Your task to perform on an android device: Do I have any events this weekend? Image 0: 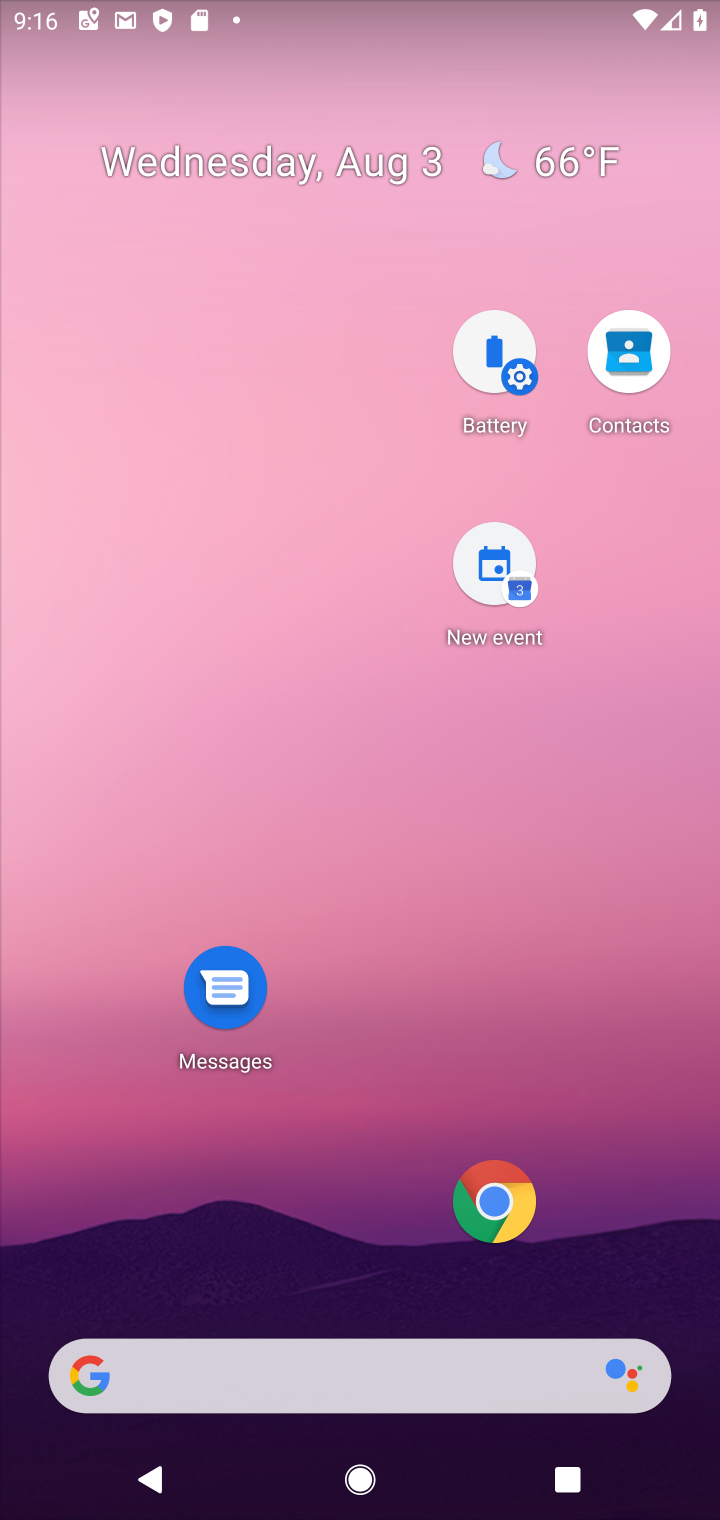
Step 0: click (239, 443)
Your task to perform on an android device: Do I have any events this weekend? Image 1: 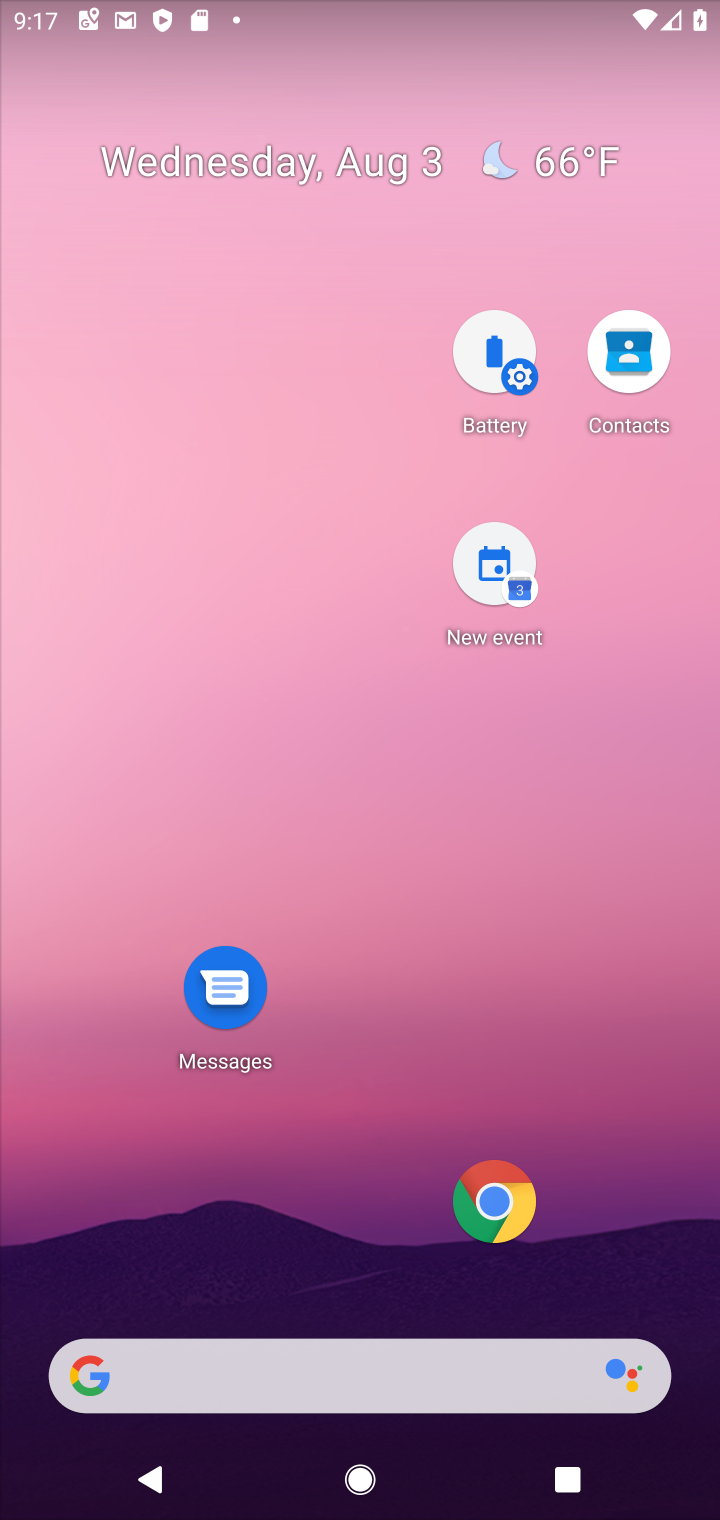
Step 1: drag from (435, 731) to (318, 17)
Your task to perform on an android device: Do I have any events this weekend? Image 2: 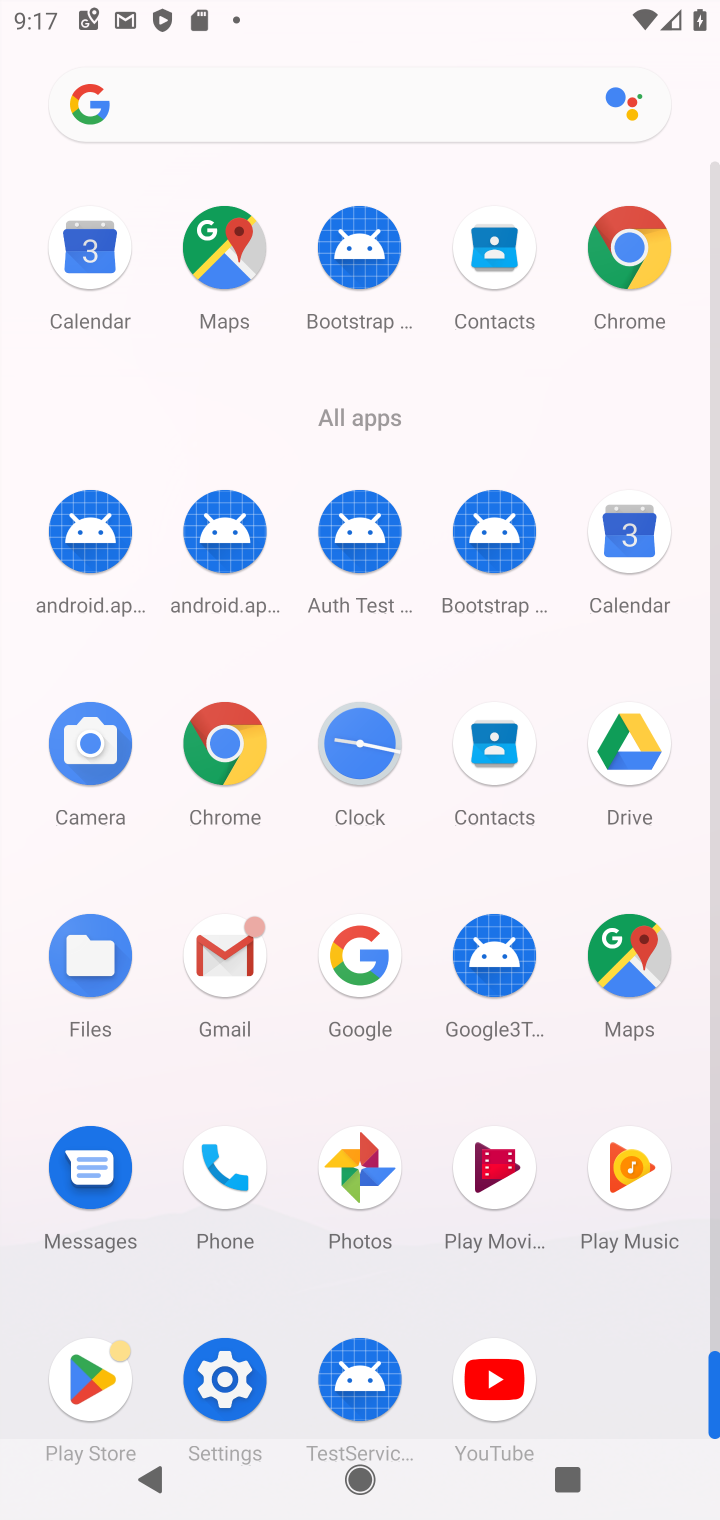
Step 2: click (623, 549)
Your task to perform on an android device: Do I have any events this weekend? Image 3: 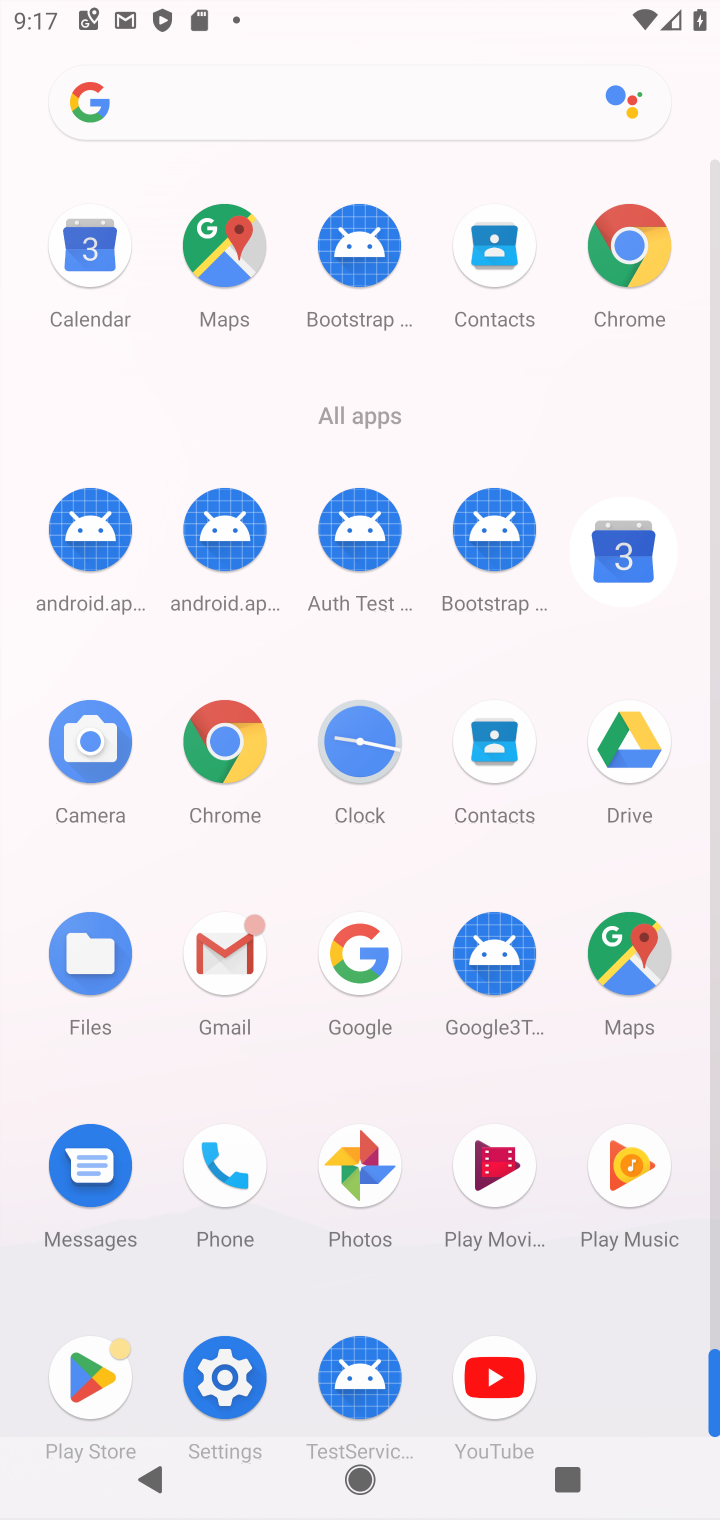
Step 3: click (623, 546)
Your task to perform on an android device: Do I have any events this weekend? Image 4: 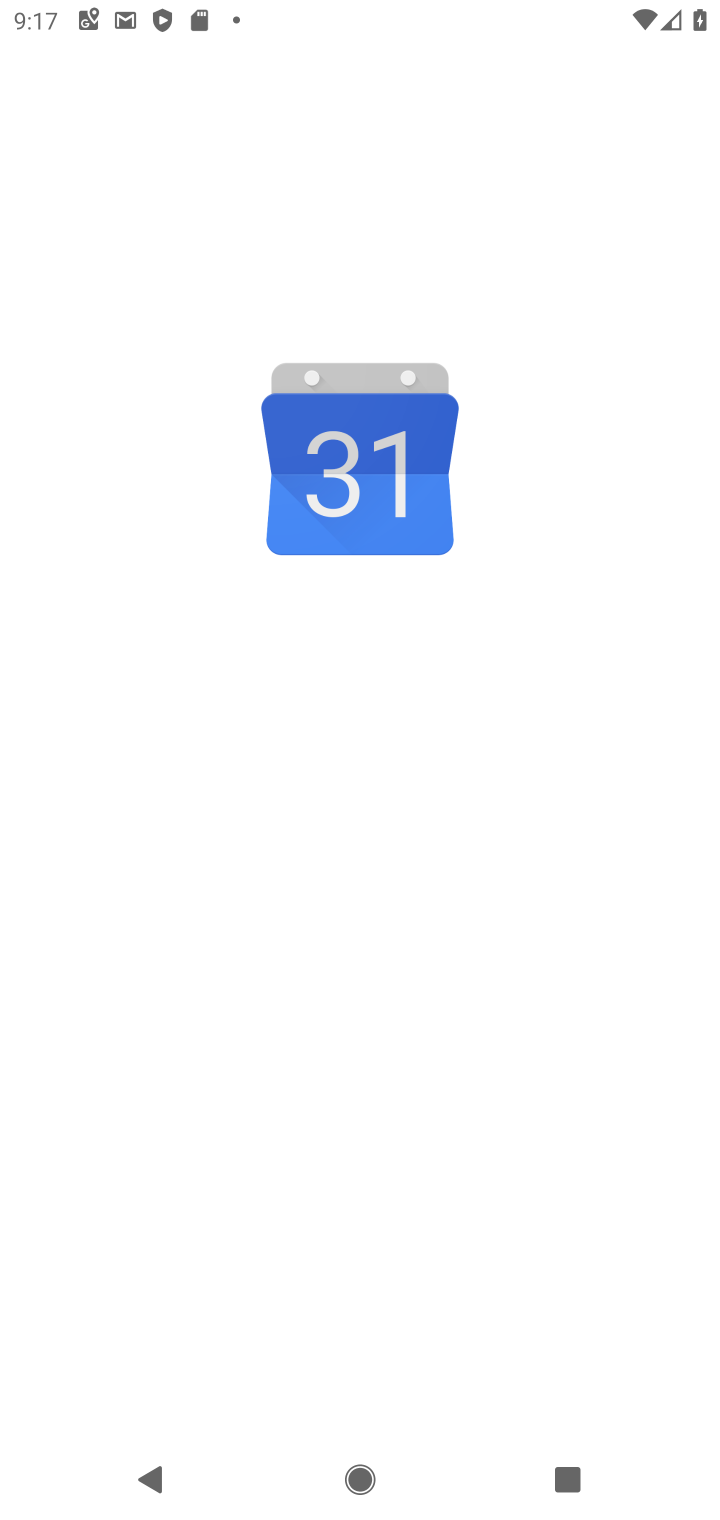
Step 4: click (622, 534)
Your task to perform on an android device: Do I have any events this weekend? Image 5: 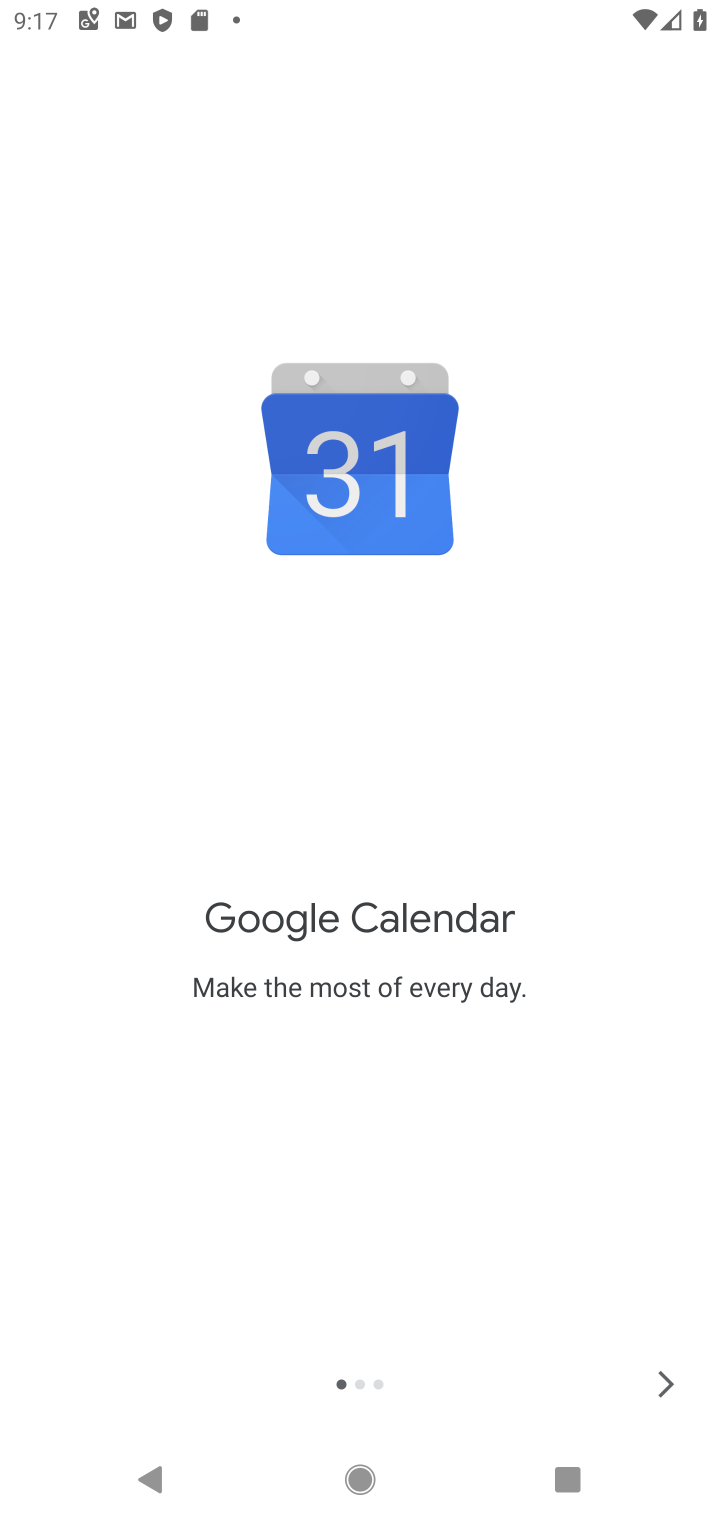
Step 5: click (656, 1365)
Your task to perform on an android device: Do I have any events this weekend? Image 6: 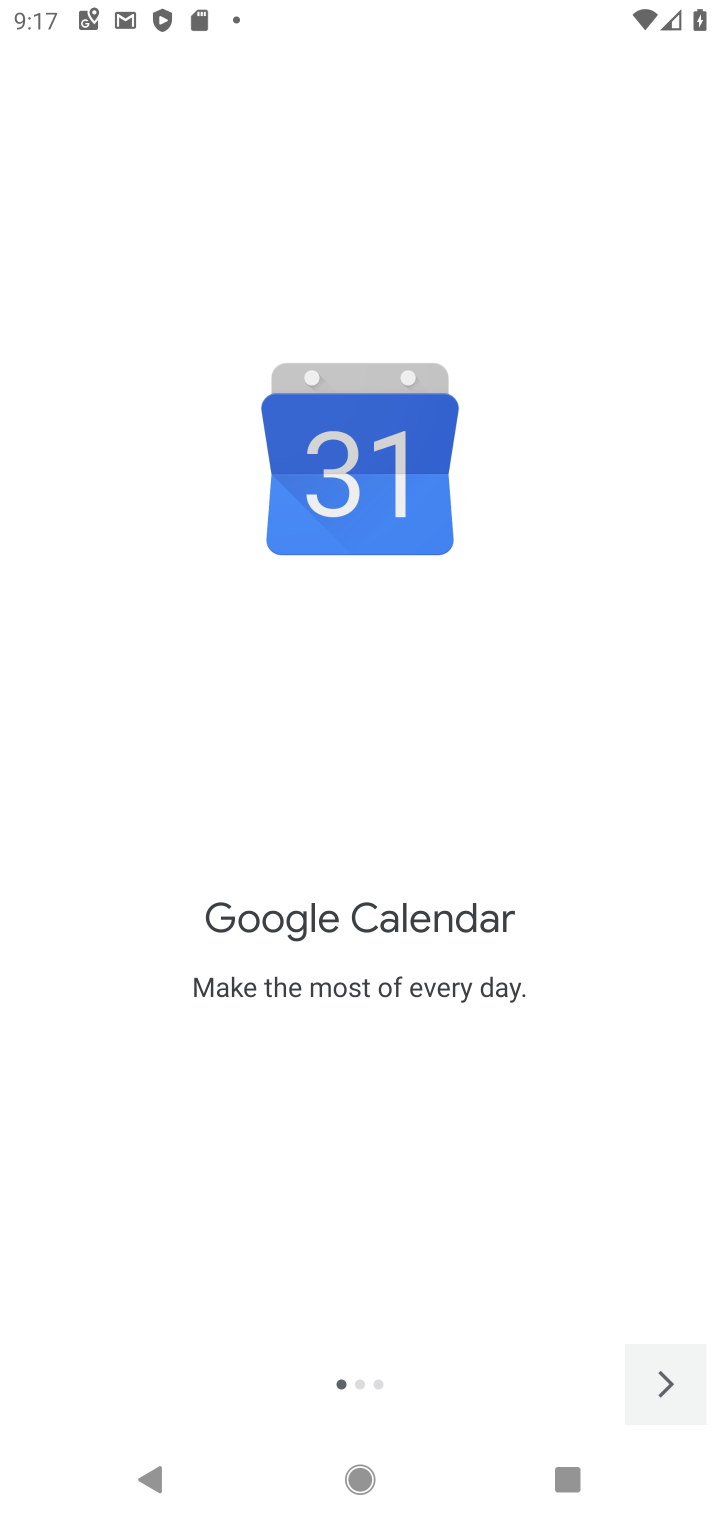
Step 6: click (659, 1384)
Your task to perform on an android device: Do I have any events this weekend? Image 7: 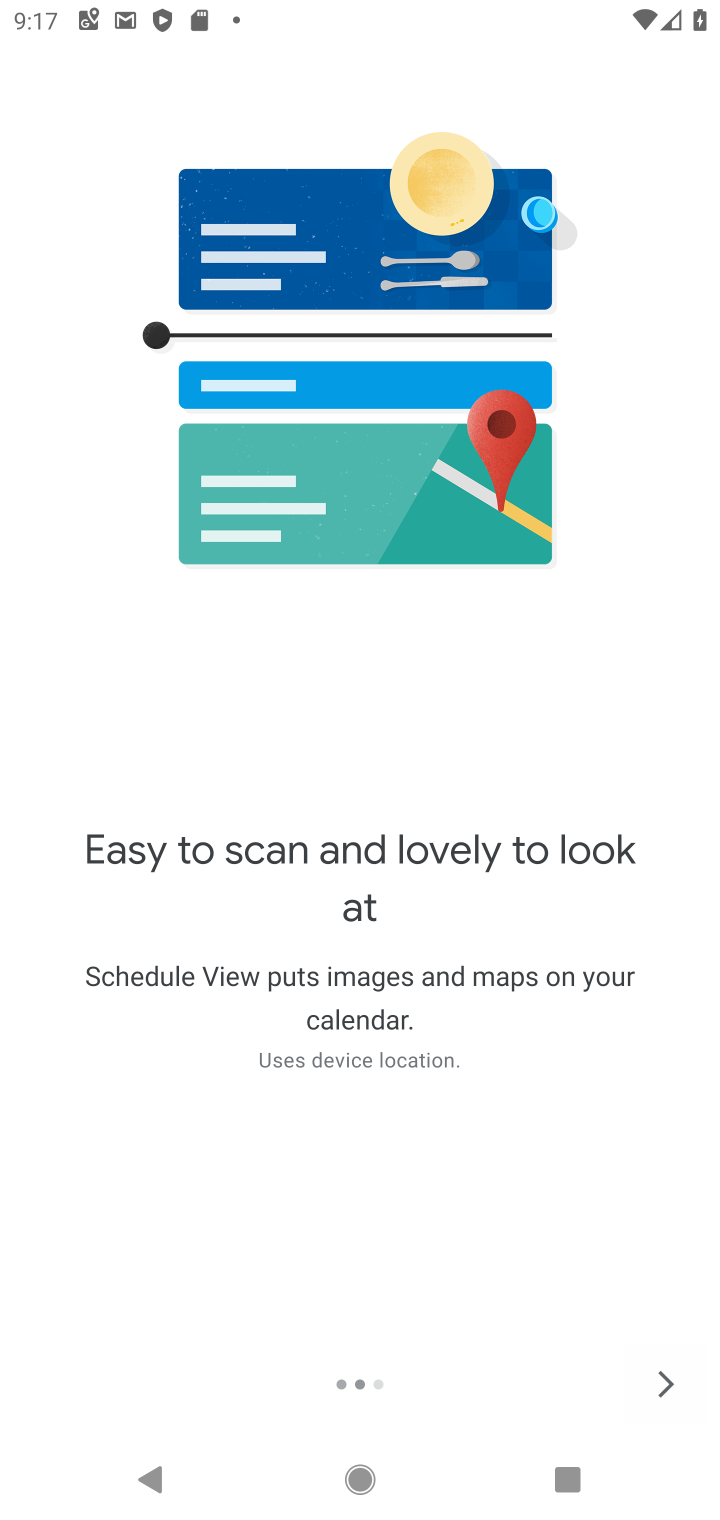
Step 7: click (659, 1384)
Your task to perform on an android device: Do I have any events this weekend? Image 8: 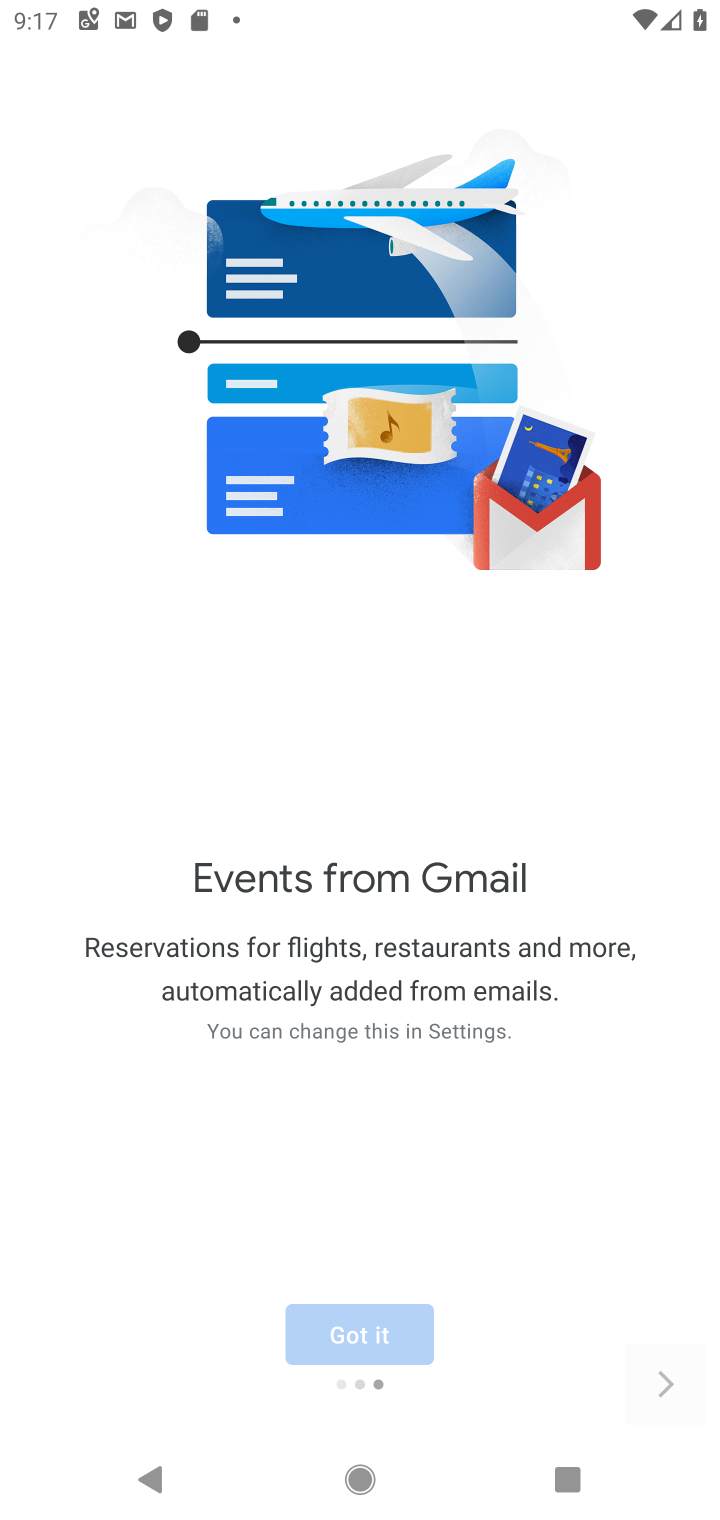
Step 8: click (652, 1382)
Your task to perform on an android device: Do I have any events this weekend? Image 9: 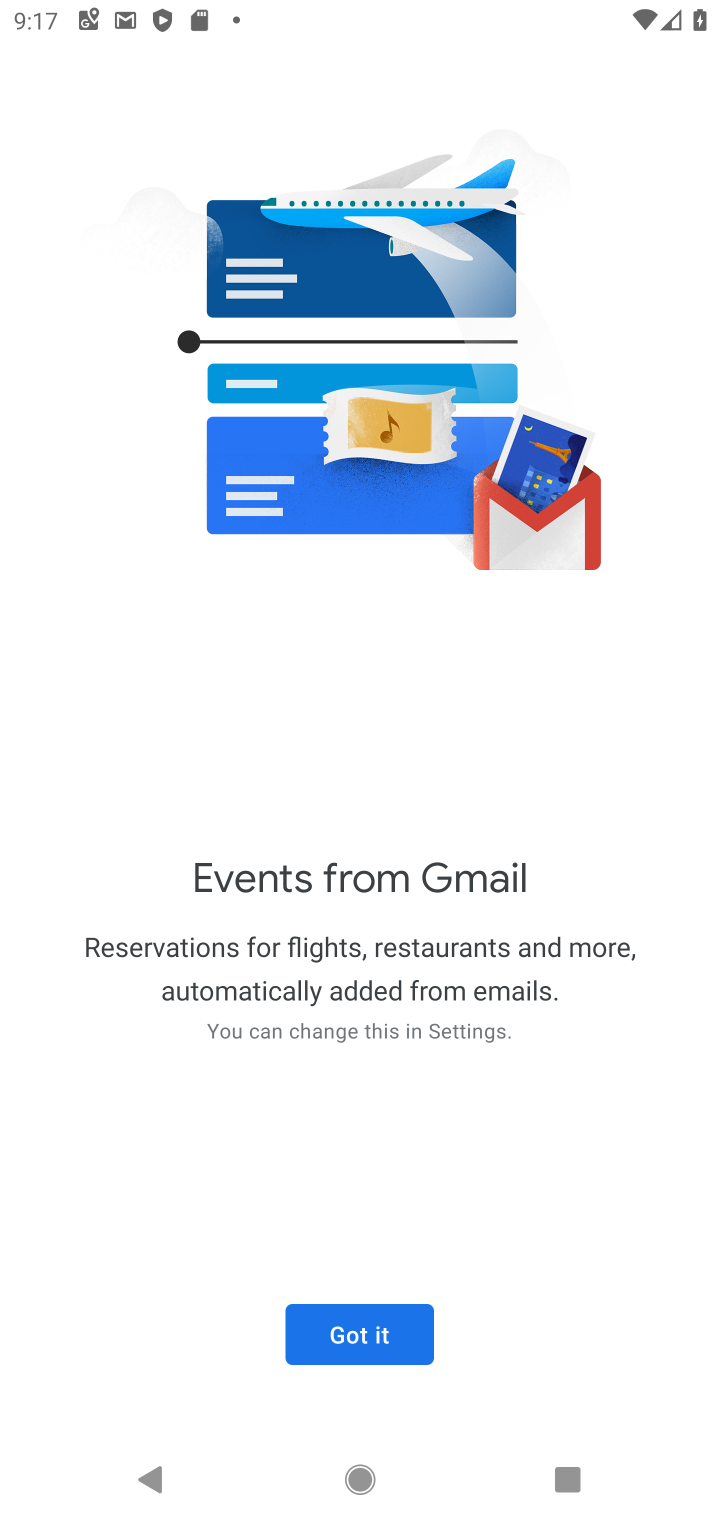
Step 9: click (363, 1316)
Your task to perform on an android device: Do I have any events this weekend? Image 10: 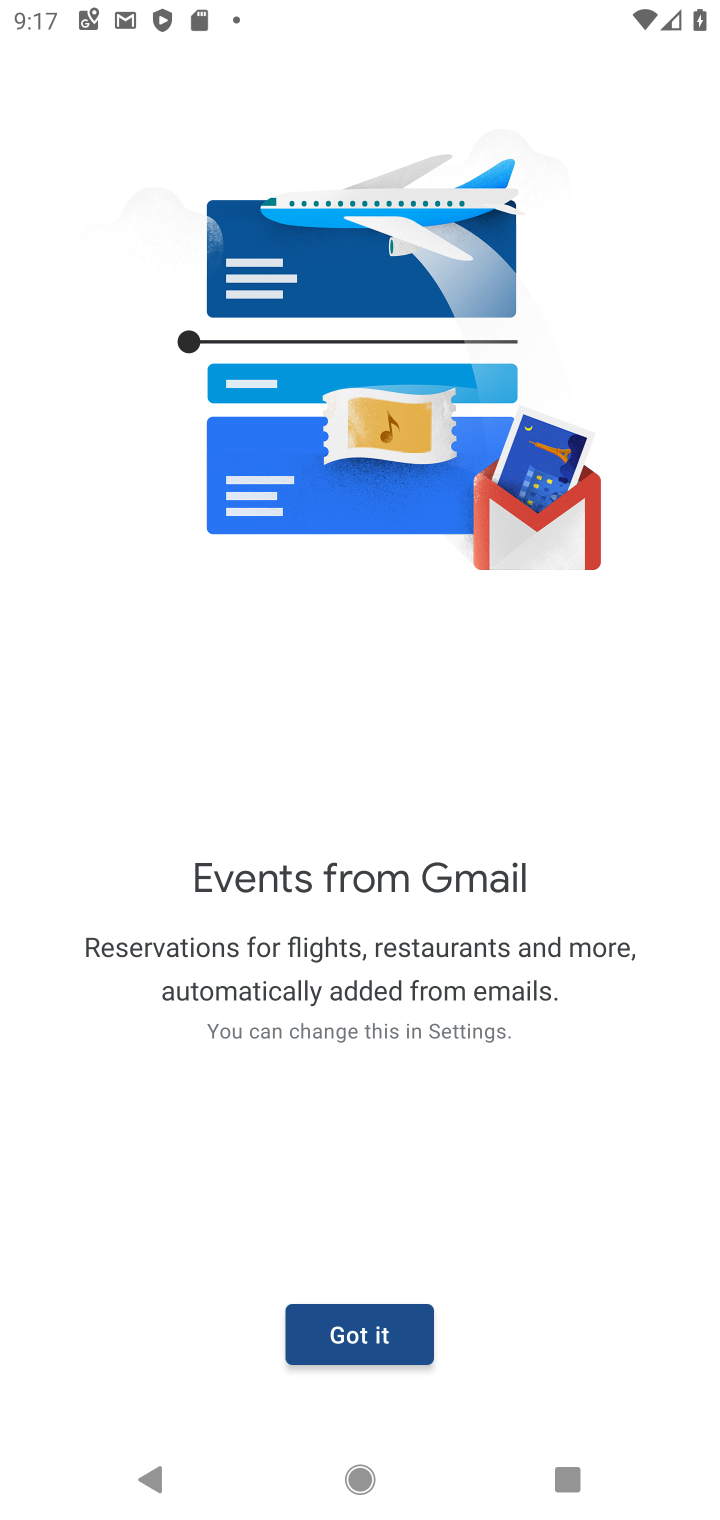
Step 10: click (394, 1295)
Your task to perform on an android device: Do I have any events this weekend? Image 11: 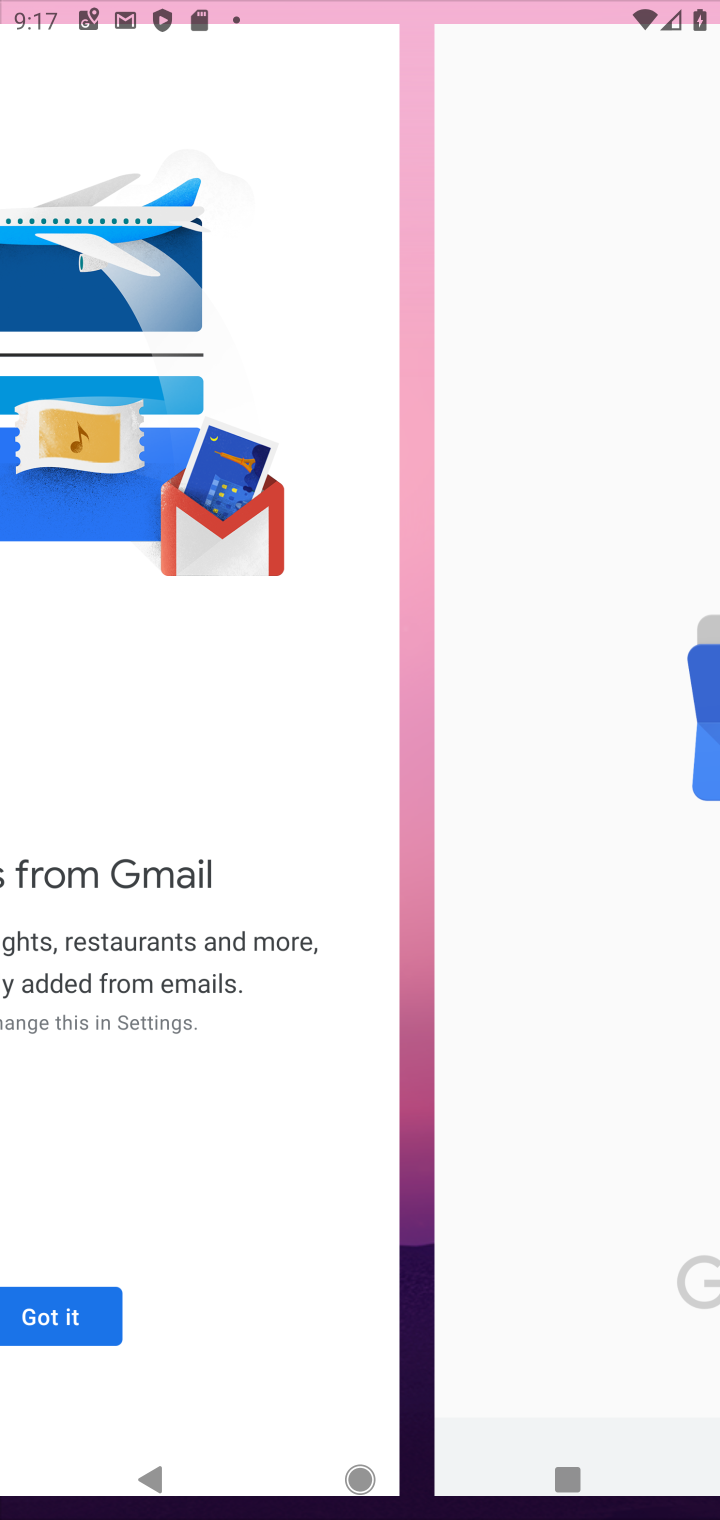
Step 11: click (341, 1346)
Your task to perform on an android device: Do I have any events this weekend? Image 12: 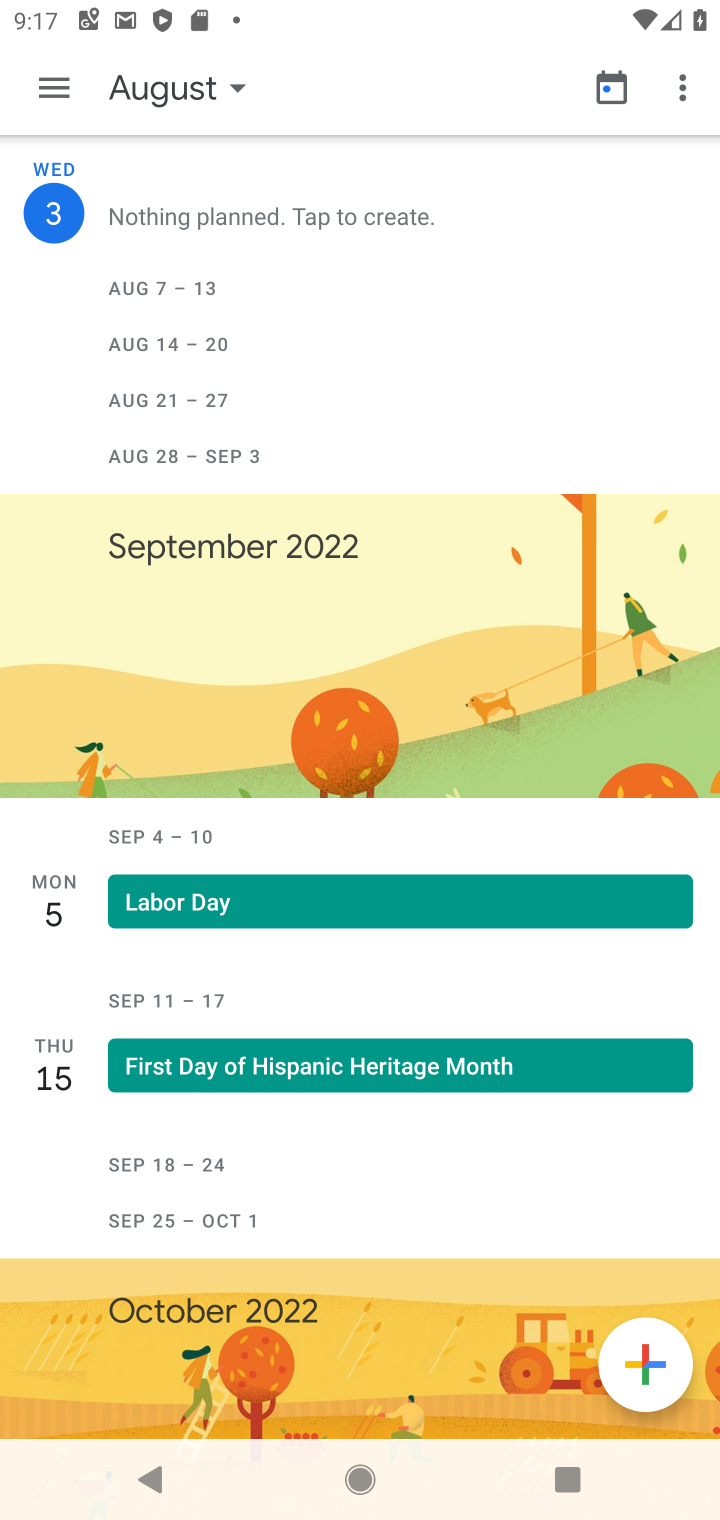
Step 12: click (228, 78)
Your task to perform on an android device: Do I have any events this weekend? Image 13: 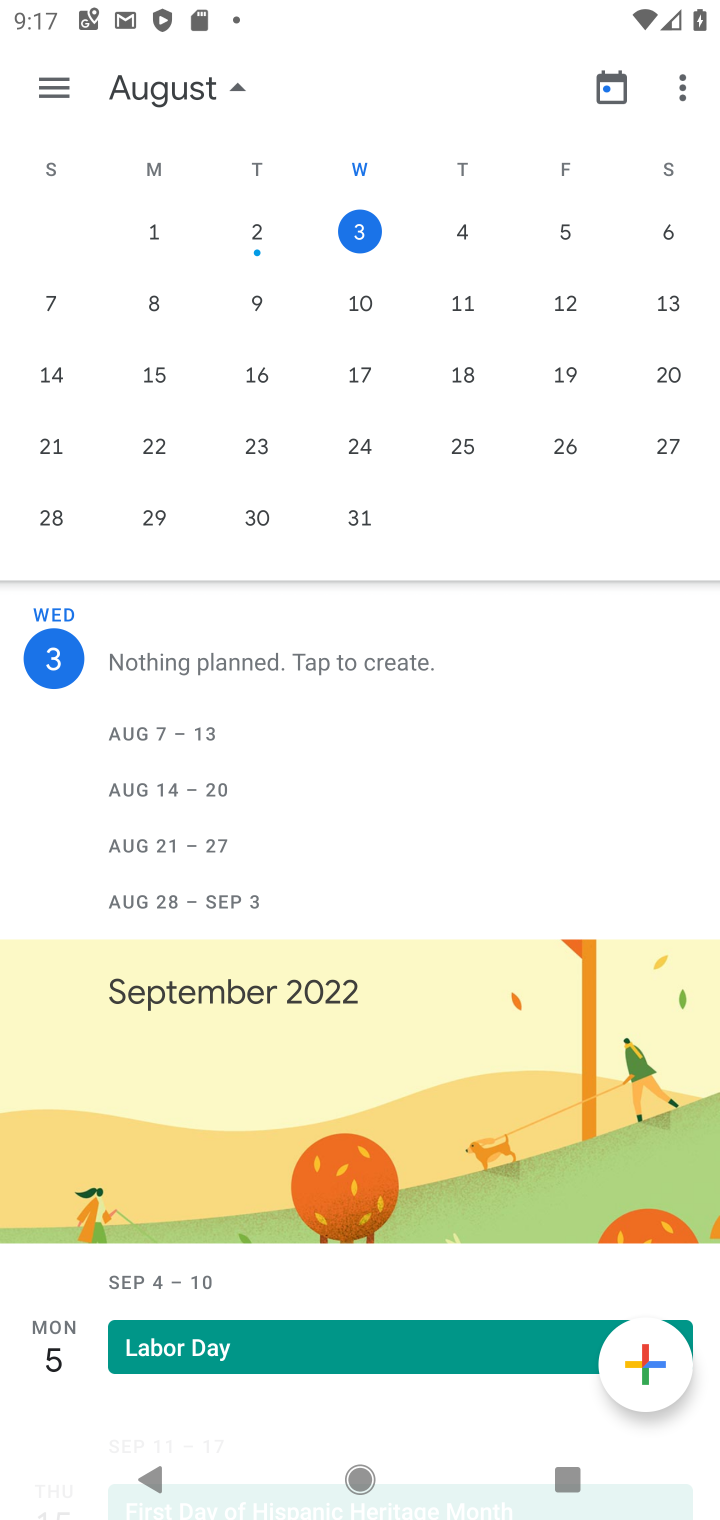
Step 13: click (662, 238)
Your task to perform on an android device: Do I have any events this weekend? Image 14: 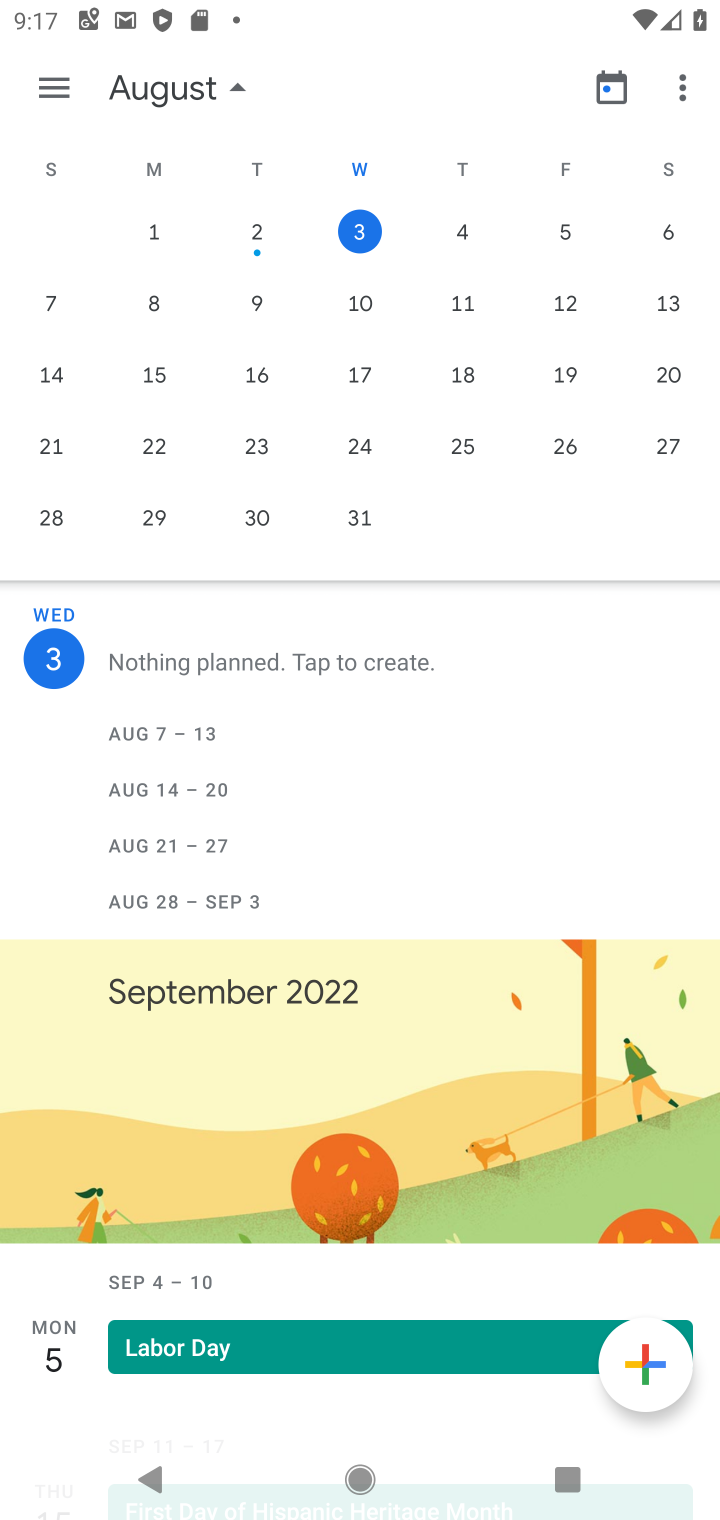
Step 14: click (664, 239)
Your task to perform on an android device: Do I have any events this weekend? Image 15: 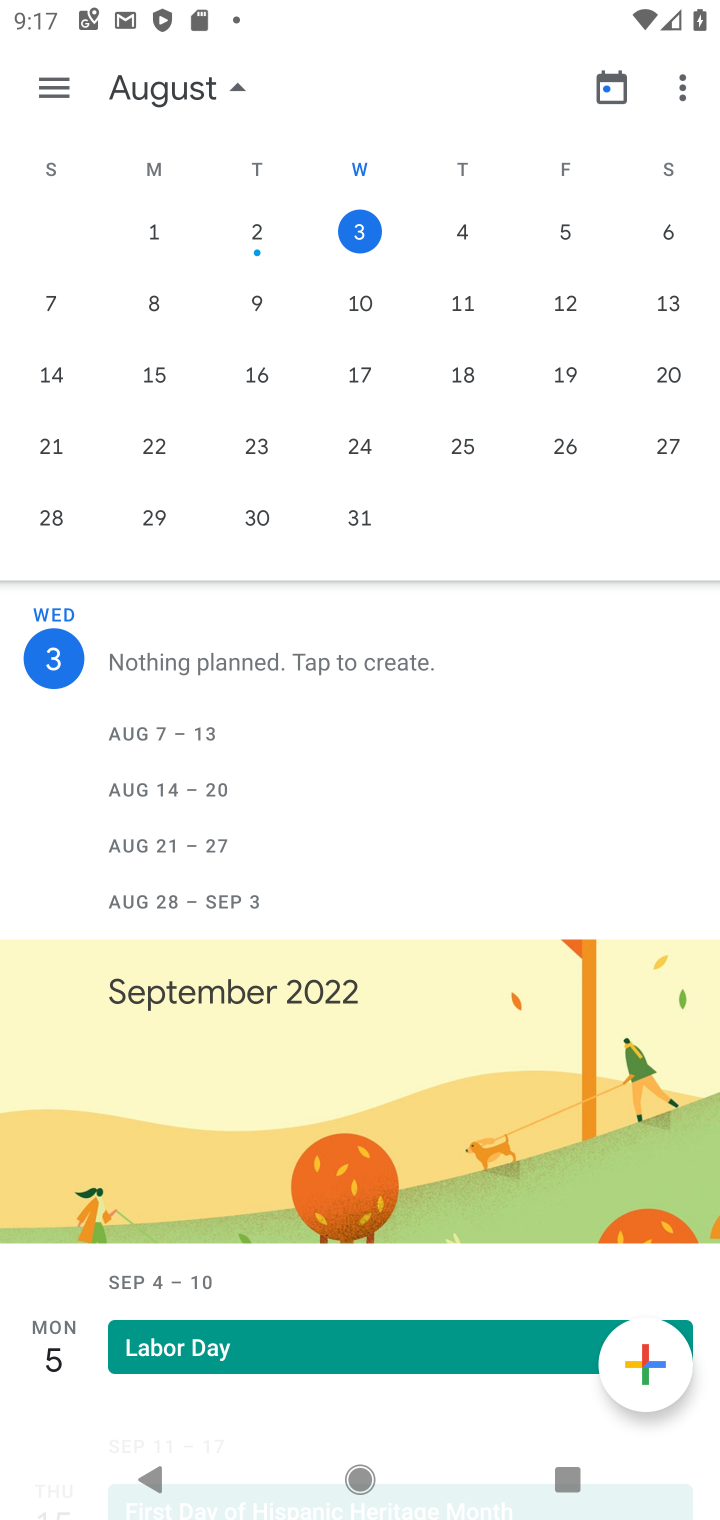
Step 15: click (664, 237)
Your task to perform on an android device: Do I have any events this weekend? Image 16: 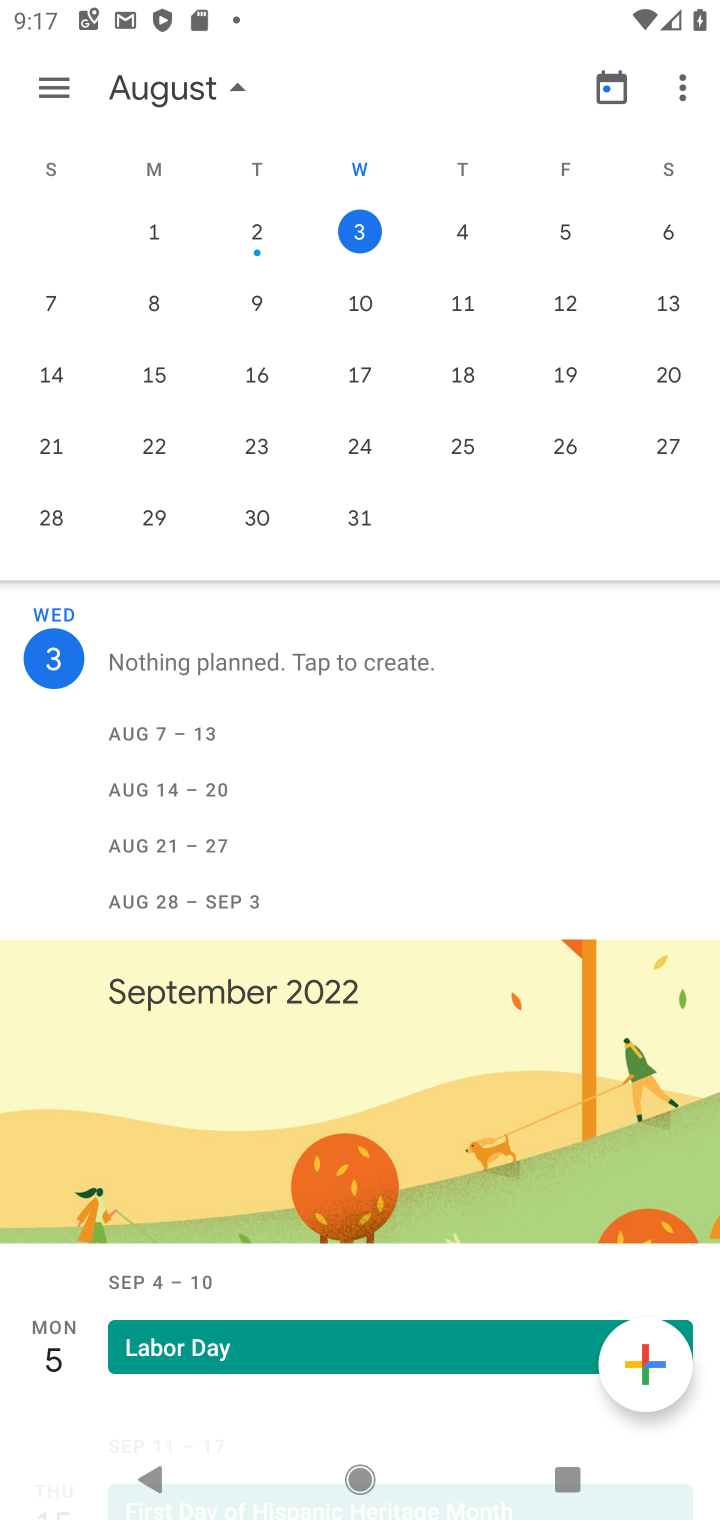
Step 16: click (666, 247)
Your task to perform on an android device: Do I have any events this weekend? Image 17: 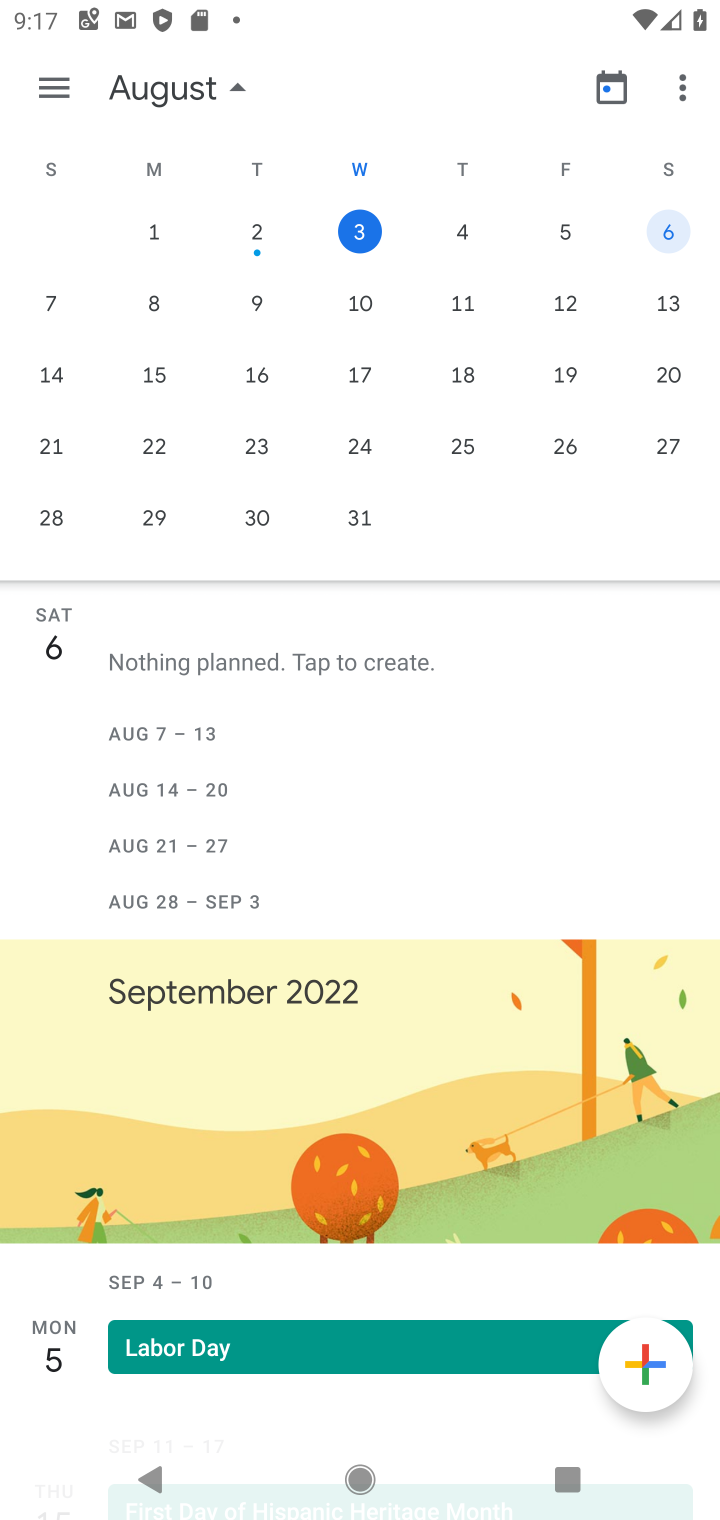
Step 17: click (677, 240)
Your task to perform on an android device: Do I have any events this weekend? Image 18: 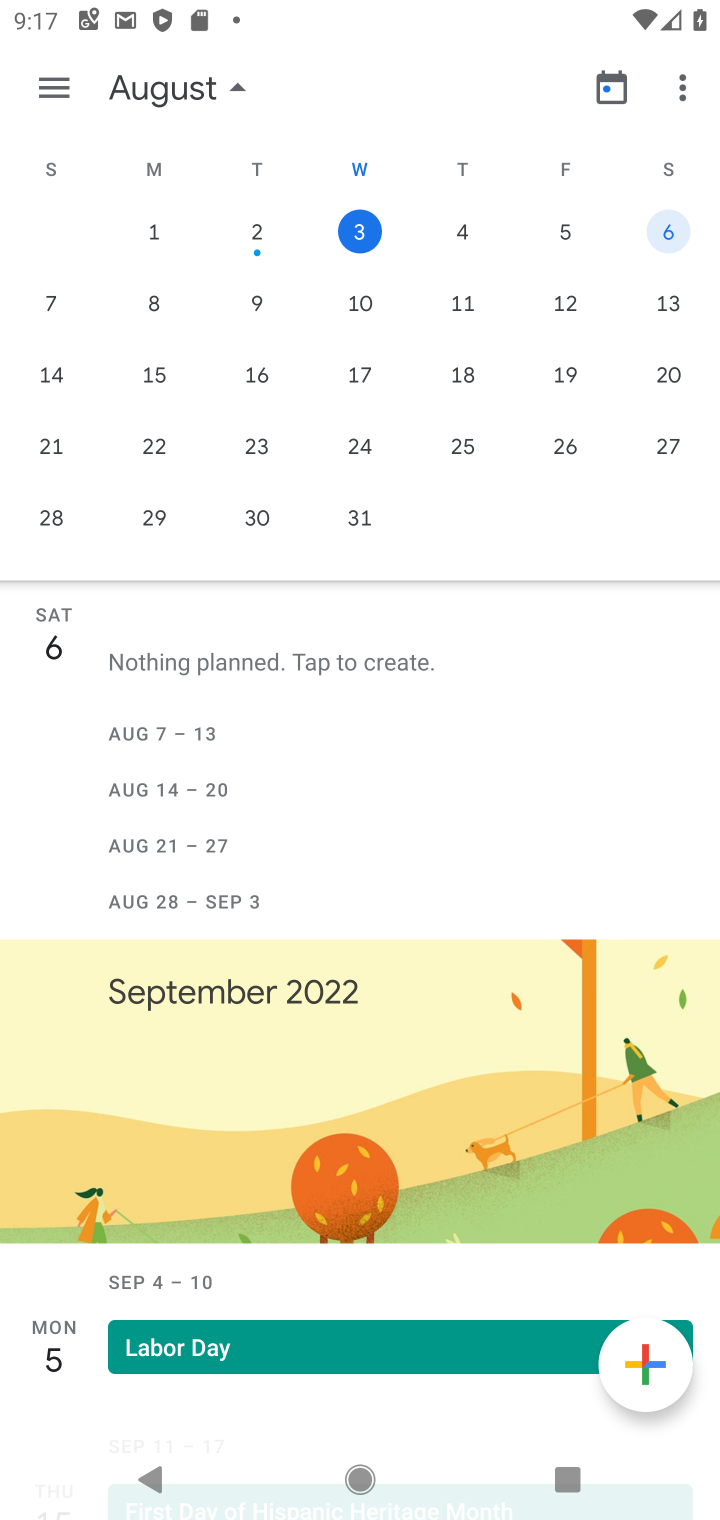
Step 18: task complete